Your task to perform on an android device: add a label to a message in the gmail app Image 0: 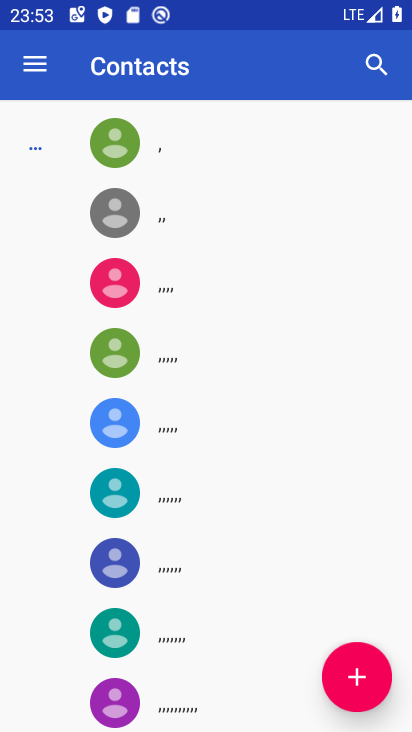
Step 0: press home button
Your task to perform on an android device: add a label to a message in the gmail app Image 1: 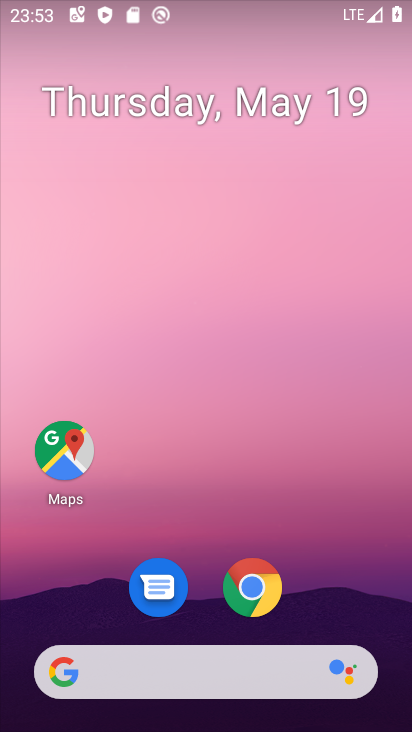
Step 1: drag from (226, 698) to (231, 257)
Your task to perform on an android device: add a label to a message in the gmail app Image 2: 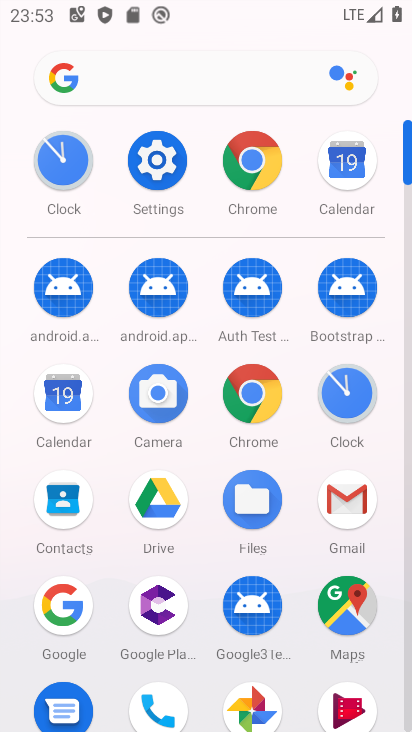
Step 2: click (337, 500)
Your task to perform on an android device: add a label to a message in the gmail app Image 3: 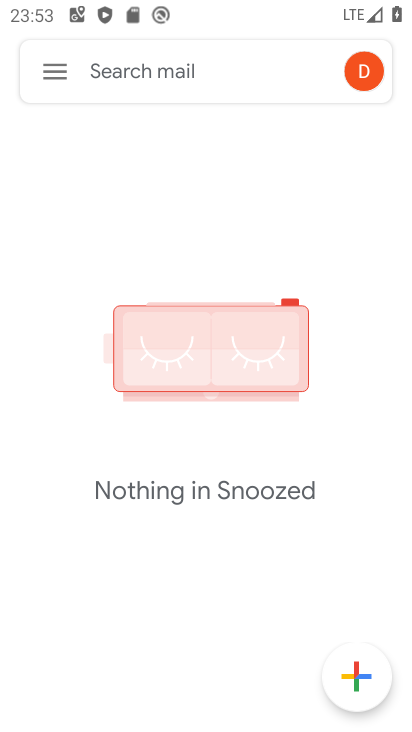
Step 3: click (45, 72)
Your task to perform on an android device: add a label to a message in the gmail app Image 4: 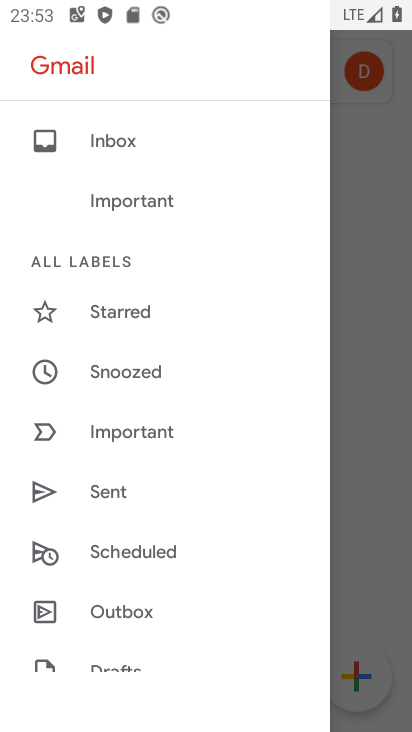
Step 4: drag from (150, 555) to (183, 423)
Your task to perform on an android device: add a label to a message in the gmail app Image 5: 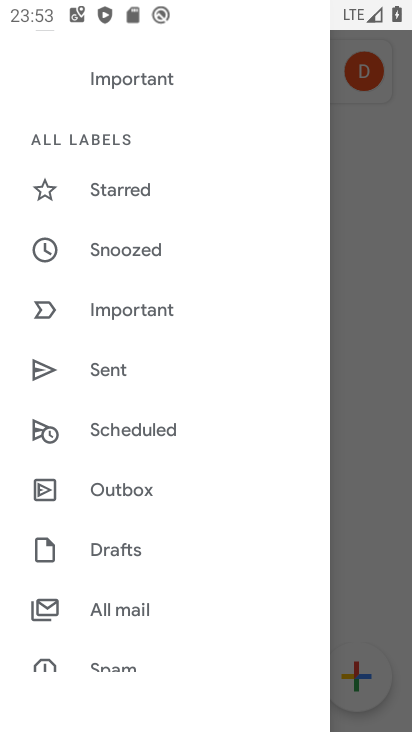
Step 5: drag from (163, 589) to (188, 293)
Your task to perform on an android device: add a label to a message in the gmail app Image 6: 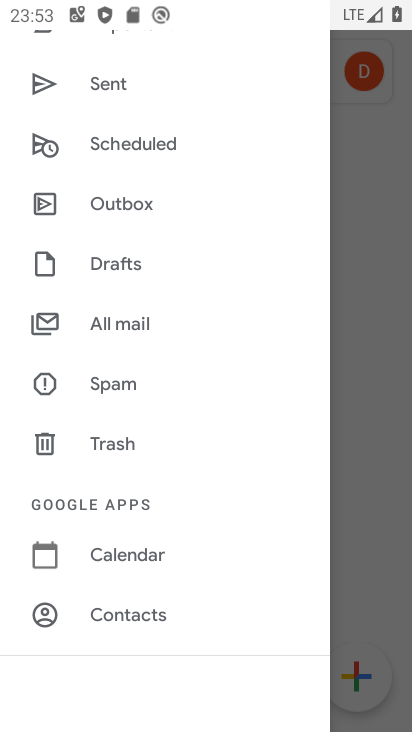
Step 6: drag from (112, 602) to (140, 465)
Your task to perform on an android device: add a label to a message in the gmail app Image 7: 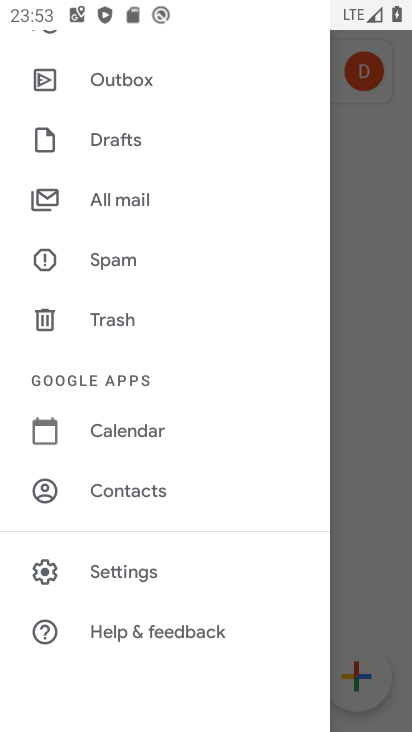
Step 7: click (122, 578)
Your task to perform on an android device: add a label to a message in the gmail app Image 8: 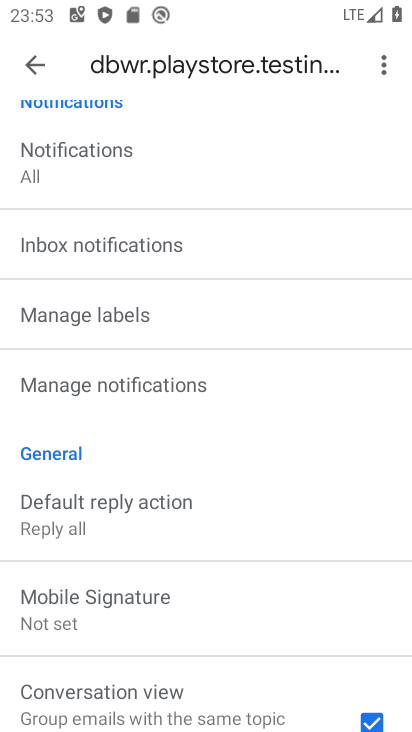
Step 8: click (76, 325)
Your task to perform on an android device: add a label to a message in the gmail app Image 9: 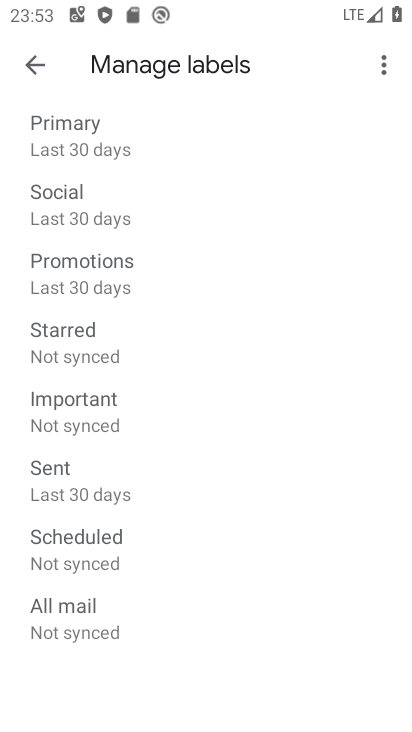
Step 9: click (108, 276)
Your task to perform on an android device: add a label to a message in the gmail app Image 10: 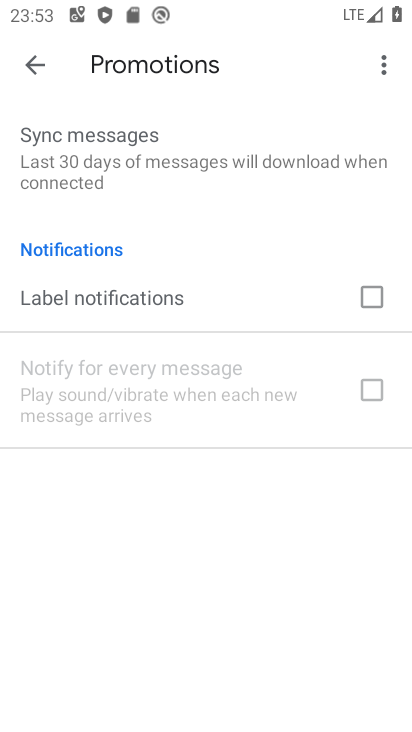
Step 10: task complete